Your task to perform on an android device: toggle sleep mode Image 0: 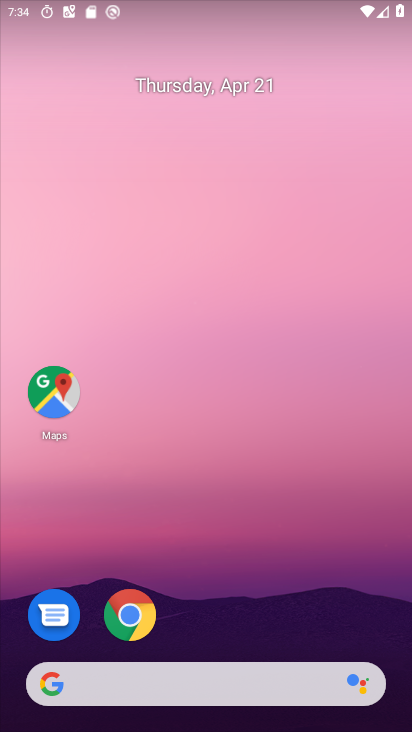
Step 0: drag from (181, 627) to (380, 78)
Your task to perform on an android device: toggle sleep mode Image 1: 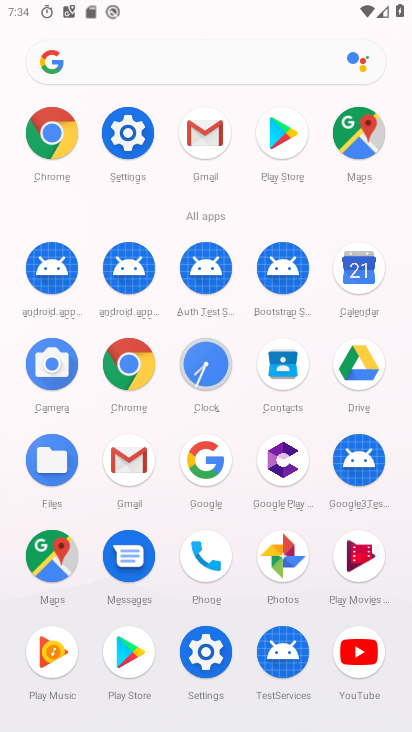
Step 1: click (129, 139)
Your task to perform on an android device: toggle sleep mode Image 2: 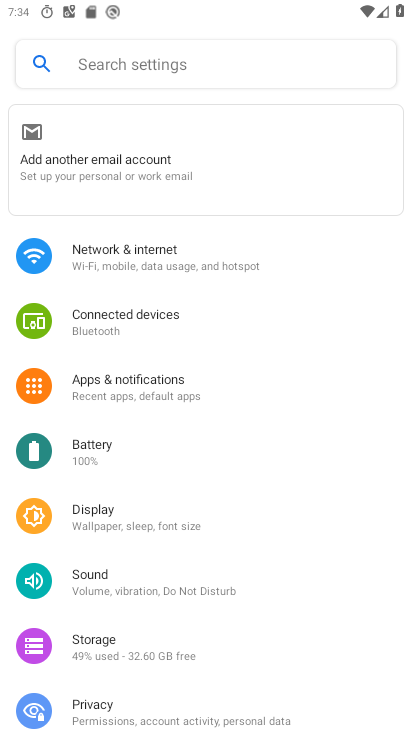
Step 2: click (133, 519)
Your task to perform on an android device: toggle sleep mode Image 3: 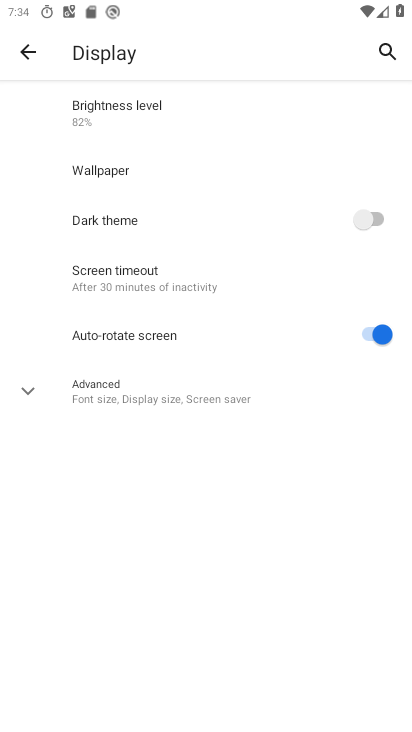
Step 3: click (39, 387)
Your task to perform on an android device: toggle sleep mode Image 4: 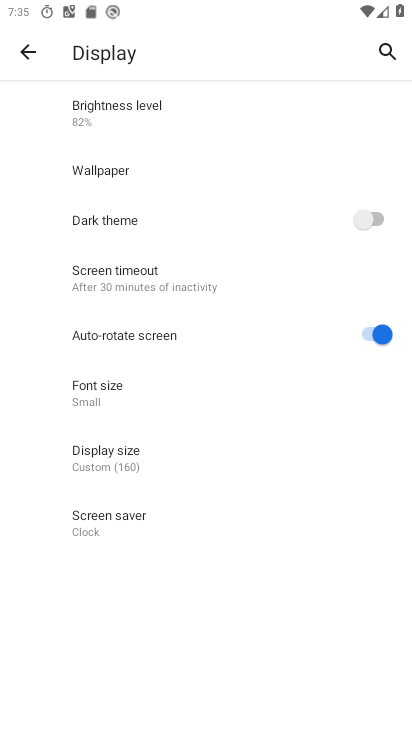
Step 4: task complete